Your task to perform on an android device: check android version Image 0: 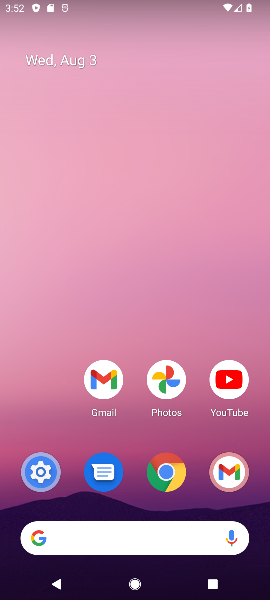
Step 0: click (45, 475)
Your task to perform on an android device: check android version Image 1: 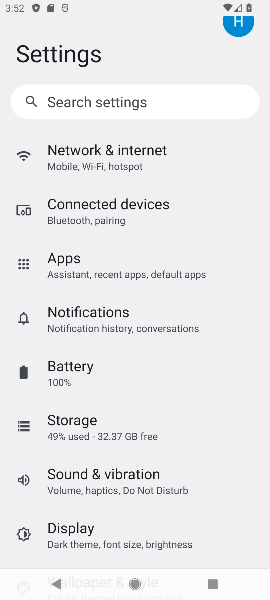
Step 1: drag from (103, 520) to (205, 28)
Your task to perform on an android device: check android version Image 2: 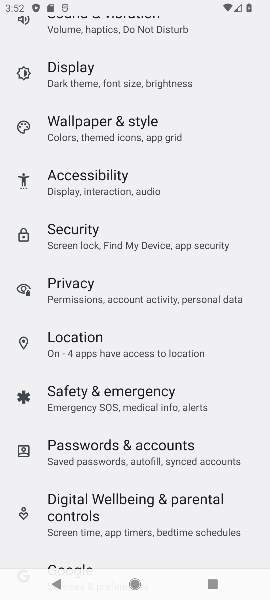
Step 2: drag from (65, 541) to (180, 20)
Your task to perform on an android device: check android version Image 3: 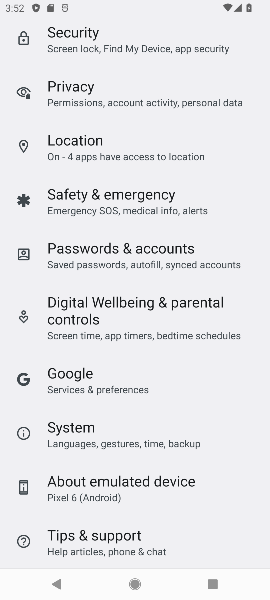
Step 3: drag from (108, 465) to (205, 31)
Your task to perform on an android device: check android version Image 4: 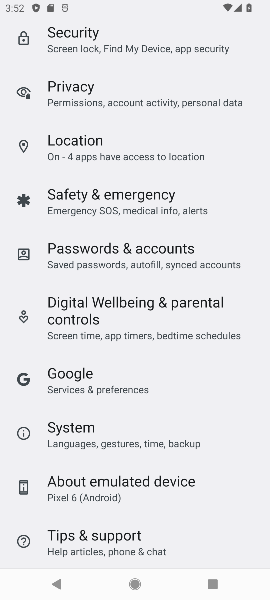
Step 4: click (123, 495)
Your task to perform on an android device: check android version Image 5: 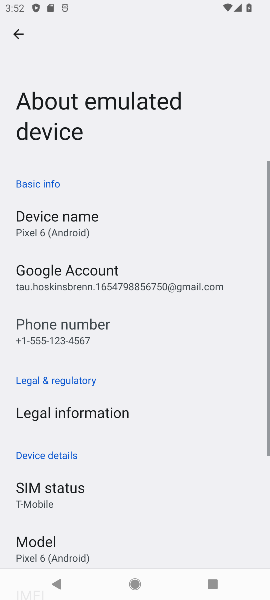
Step 5: drag from (81, 534) to (199, 60)
Your task to perform on an android device: check android version Image 6: 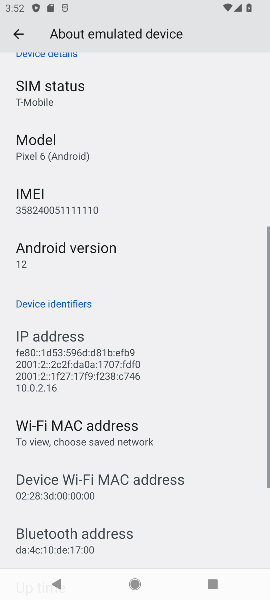
Step 6: click (46, 245)
Your task to perform on an android device: check android version Image 7: 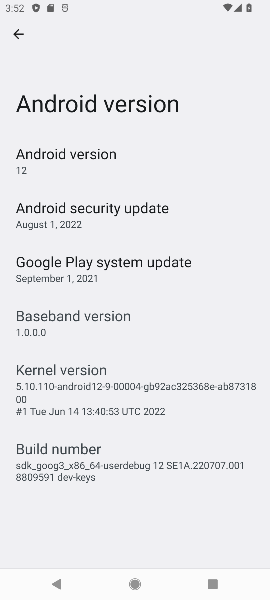
Step 7: task complete